Your task to perform on an android device: Open Yahoo.com Image 0: 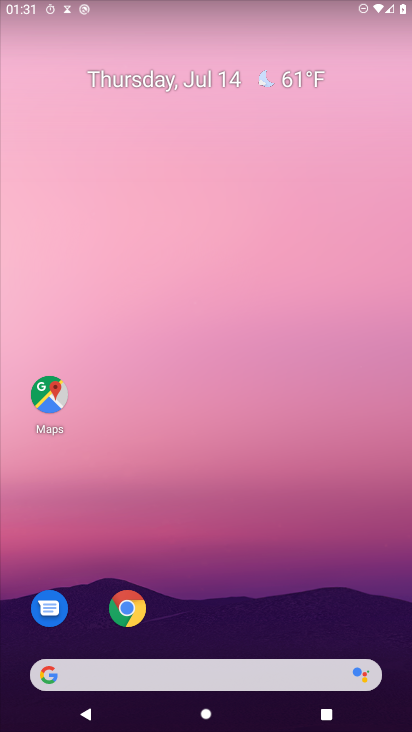
Step 0: click (50, 676)
Your task to perform on an android device: Open Yahoo.com Image 1: 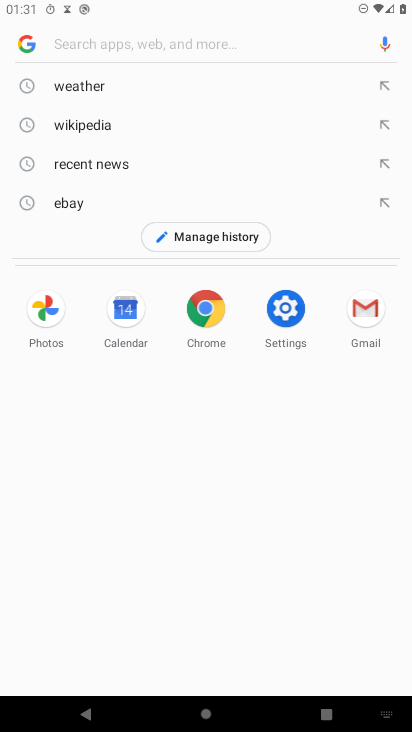
Step 1: type " Yahoo.com"
Your task to perform on an android device: Open Yahoo.com Image 2: 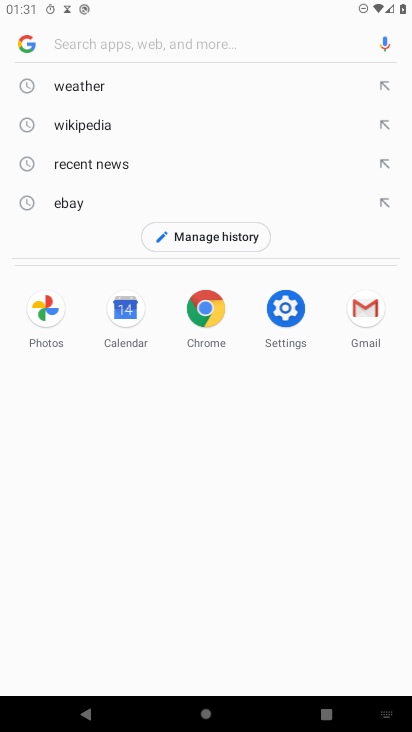
Step 2: click (63, 27)
Your task to perform on an android device: Open Yahoo.com Image 3: 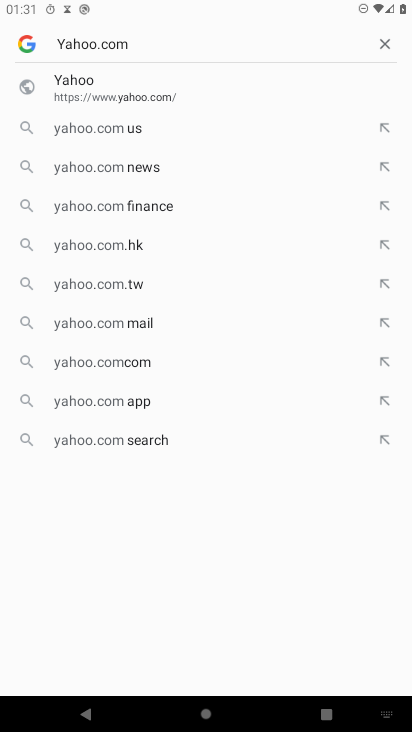
Step 3: press enter
Your task to perform on an android device: Open Yahoo.com Image 4: 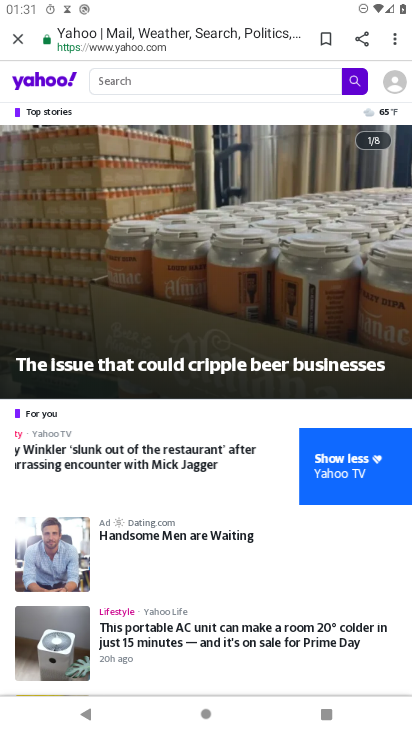
Step 4: task complete